Your task to perform on an android device: all mails in gmail Image 0: 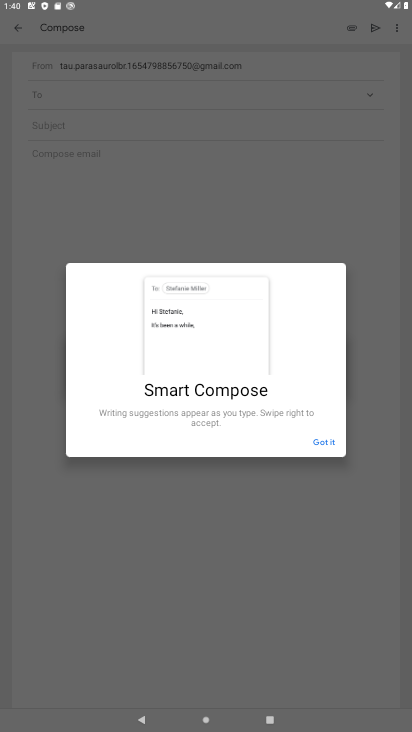
Step 0: press home button
Your task to perform on an android device: all mails in gmail Image 1: 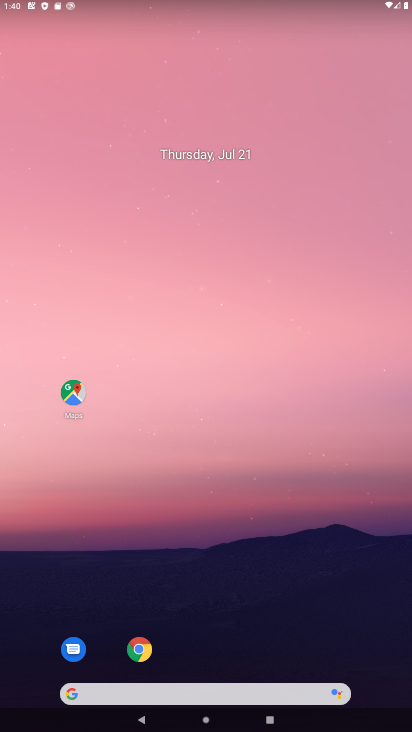
Step 1: drag from (229, 675) to (278, 196)
Your task to perform on an android device: all mails in gmail Image 2: 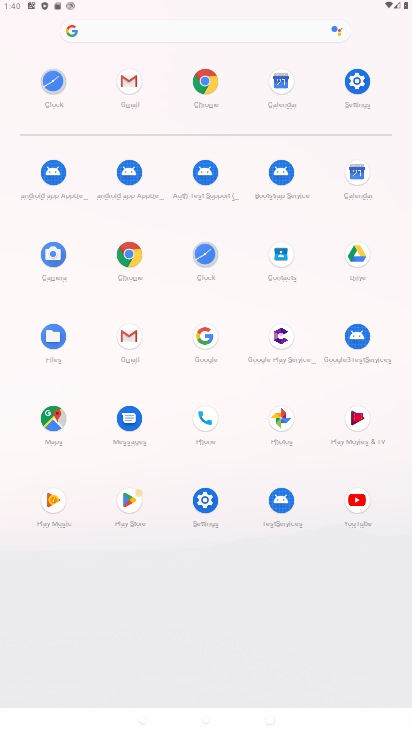
Step 2: click (129, 335)
Your task to perform on an android device: all mails in gmail Image 3: 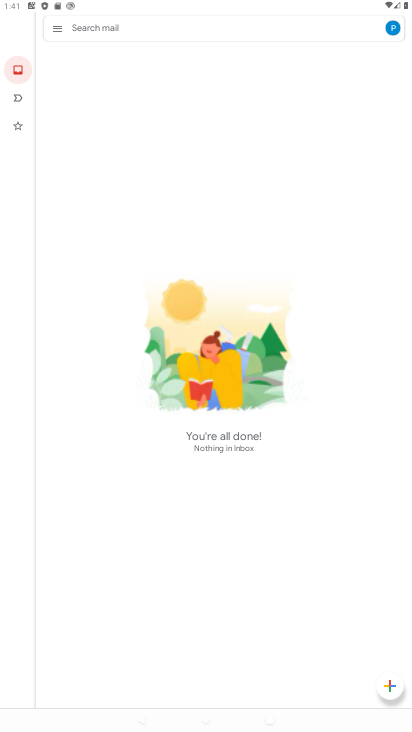
Step 3: click (59, 28)
Your task to perform on an android device: all mails in gmail Image 4: 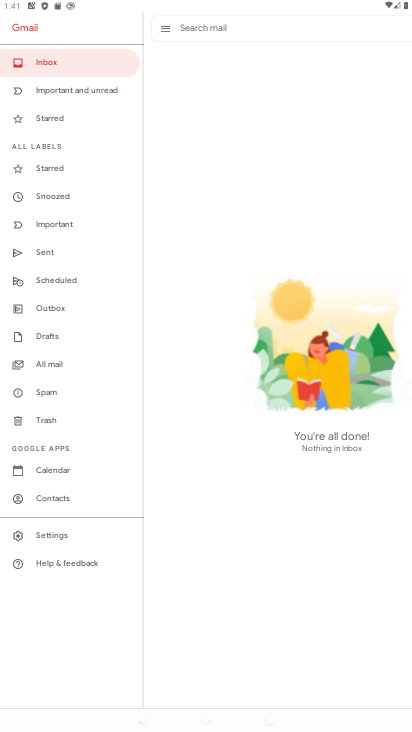
Step 4: click (48, 361)
Your task to perform on an android device: all mails in gmail Image 5: 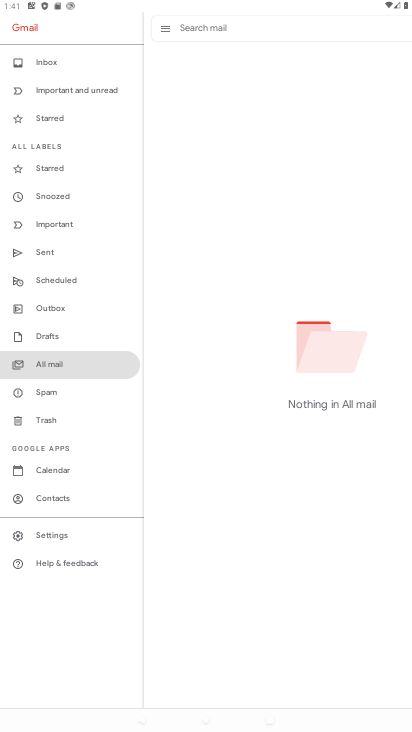
Step 5: task complete